Your task to perform on an android device: set the timer Image 0: 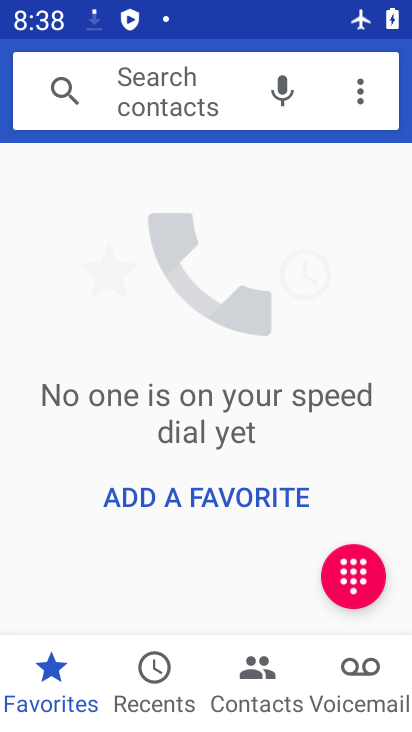
Step 0: press home button
Your task to perform on an android device: set the timer Image 1: 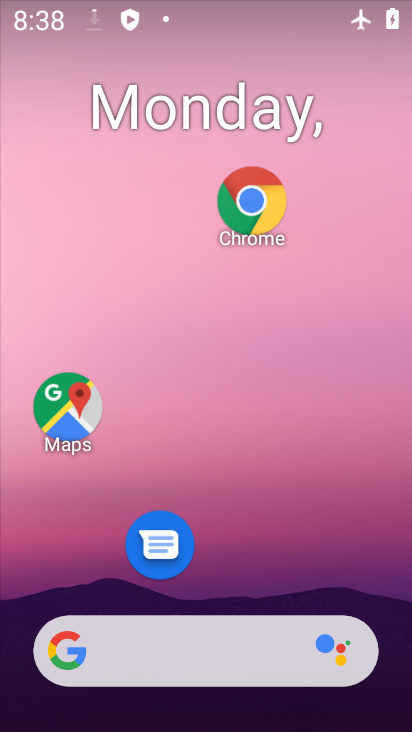
Step 1: drag from (237, 585) to (201, 180)
Your task to perform on an android device: set the timer Image 2: 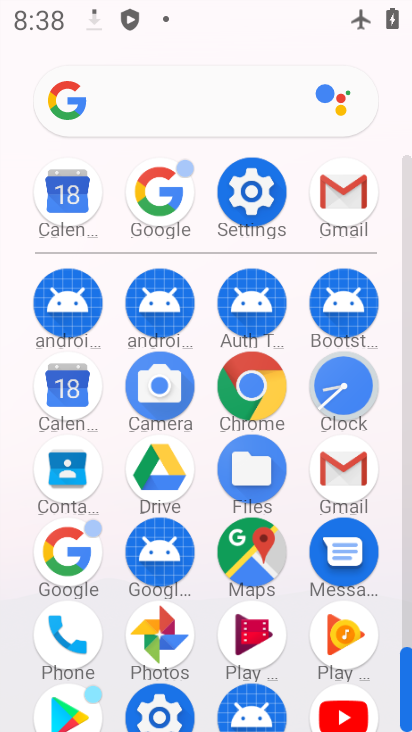
Step 2: click (322, 397)
Your task to perform on an android device: set the timer Image 3: 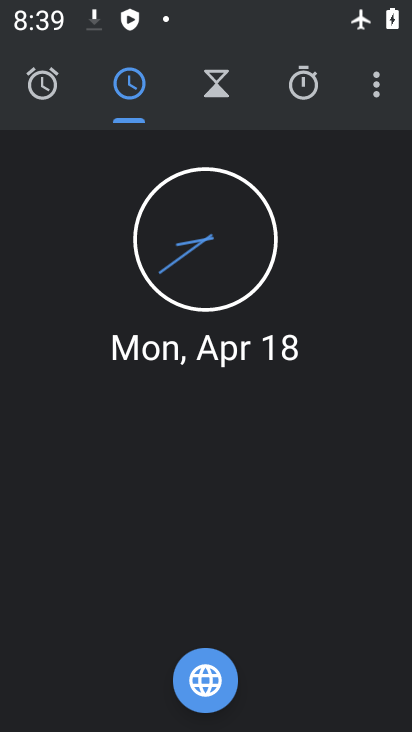
Step 3: click (222, 89)
Your task to perform on an android device: set the timer Image 4: 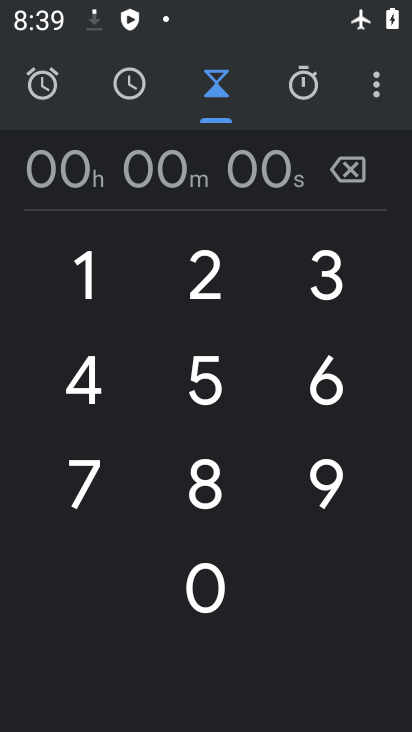
Step 4: click (280, 162)
Your task to perform on an android device: set the timer Image 5: 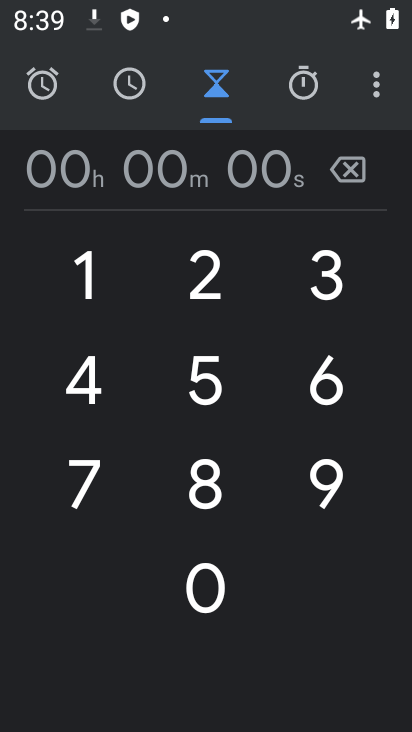
Step 5: type "65"
Your task to perform on an android device: set the timer Image 6: 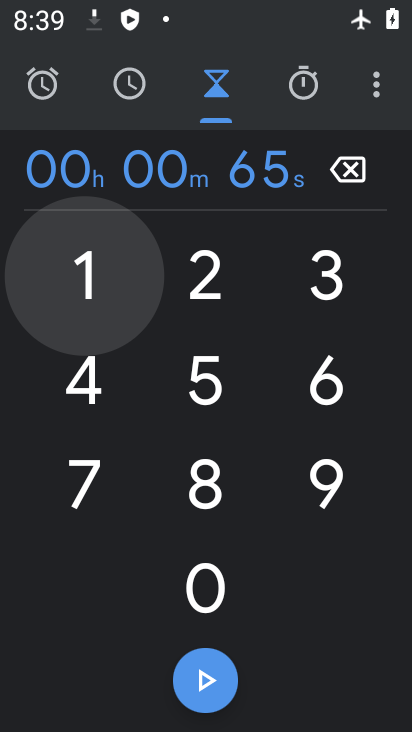
Step 6: click (204, 655)
Your task to perform on an android device: set the timer Image 7: 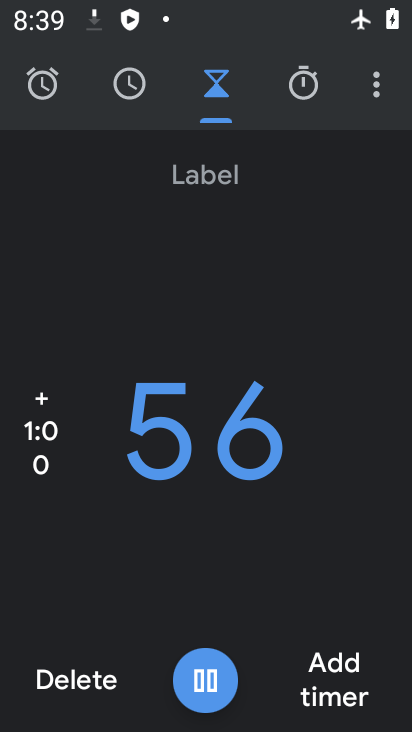
Step 7: task complete